Your task to perform on an android device: Open wifi settings Image 0: 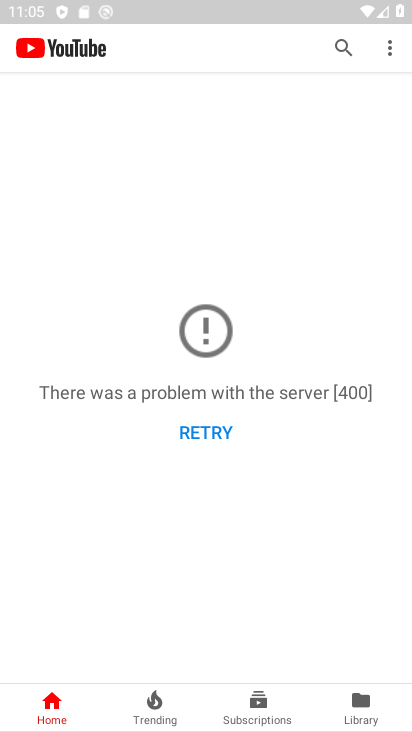
Step 0: press home button
Your task to perform on an android device: Open wifi settings Image 1: 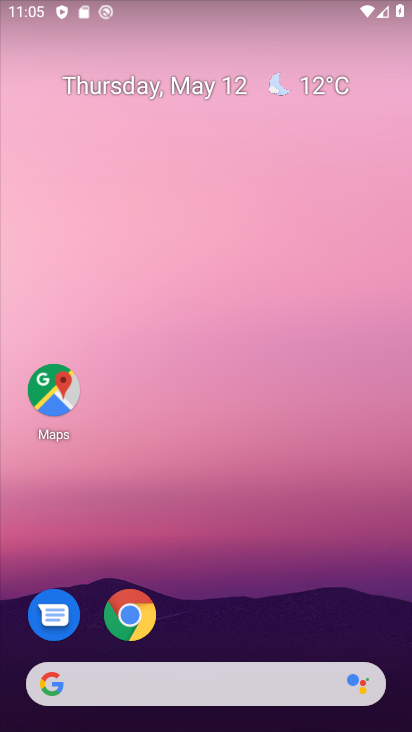
Step 1: drag from (232, 623) to (241, 181)
Your task to perform on an android device: Open wifi settings Image 2: 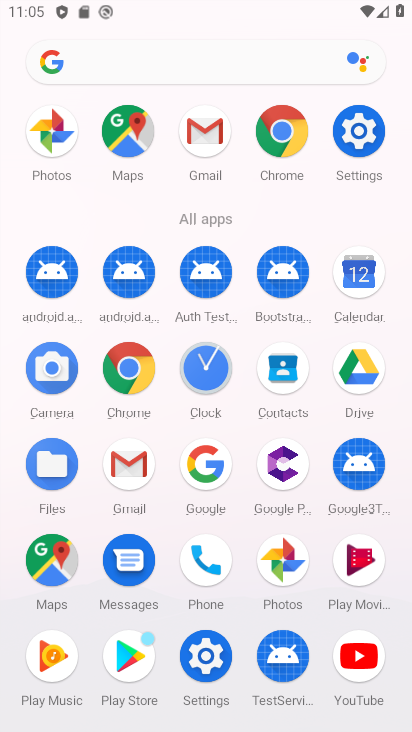
Step 2: click (352, 127)
Your task to perform on an android device: Open wifi settings Image 3: 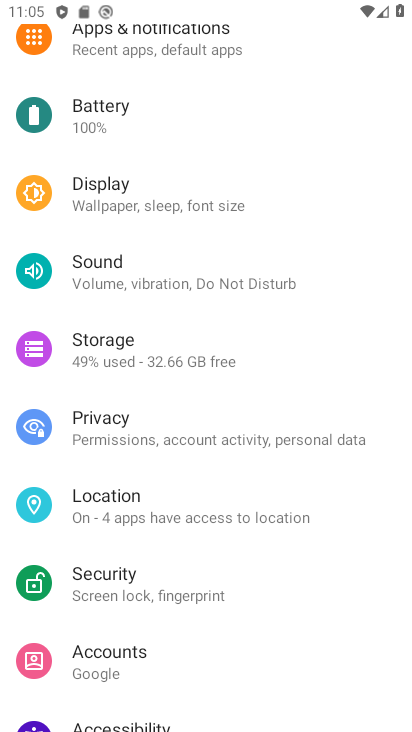
Step 3: drag from (242, 163) to (240, 418)
Your task to perform on an android device: Open wifi settings Image 4: 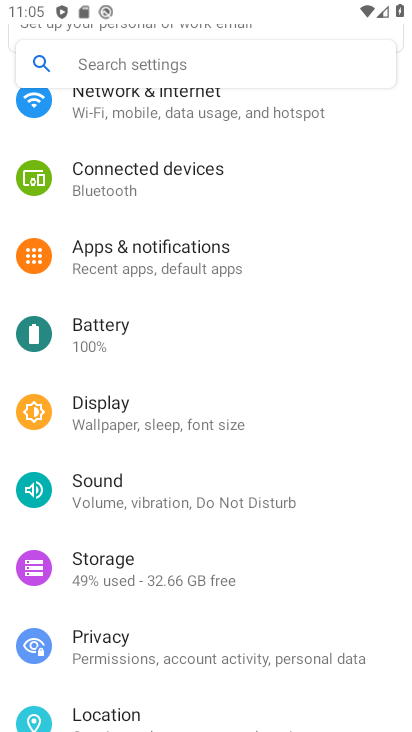
Step 4: drag from (177, 184) to (213, 443)
Your task to perform on an android device: Open wifi settings Image 5: 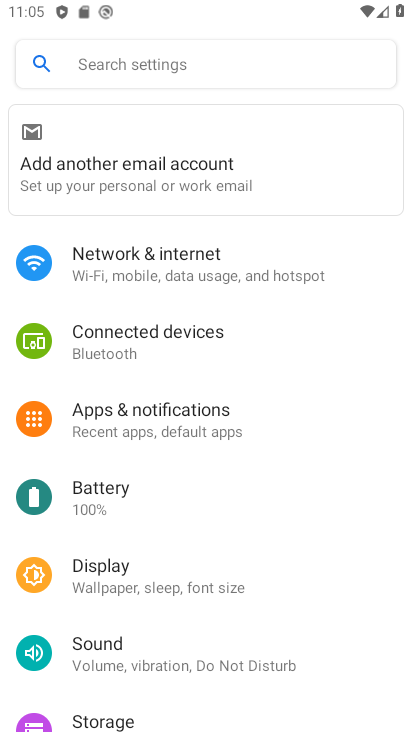
Step 5: click (102, 273)
Your task to perform on an android device: Open wifi settings Image 6: 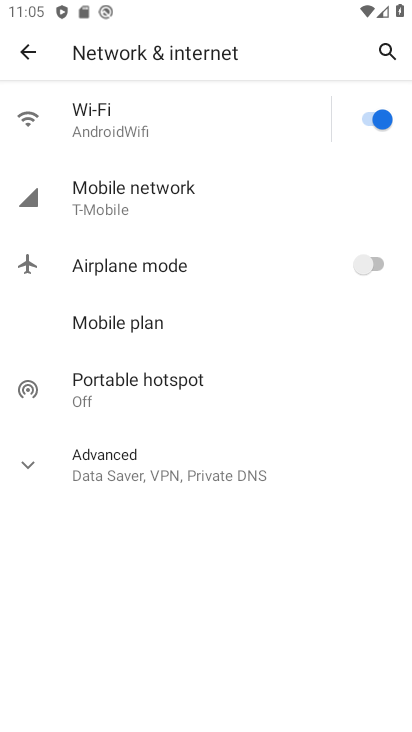
Step 6: click (146, 133)
Your task to perform on an android device: Open wifi settings Image 7: 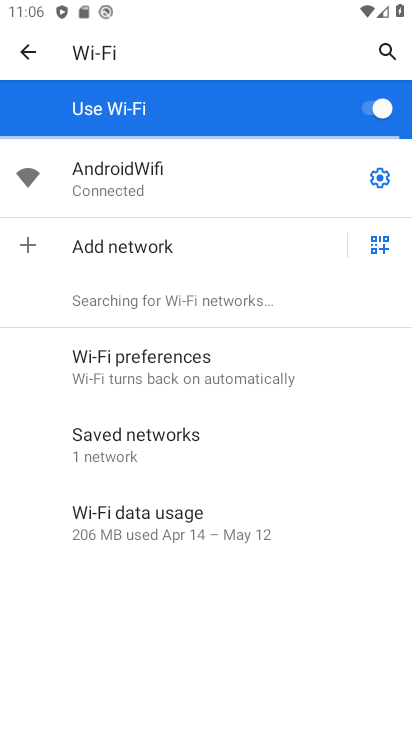
Step 7: task complete